Your task to perform on an android device: Go to battery settings Image 0: 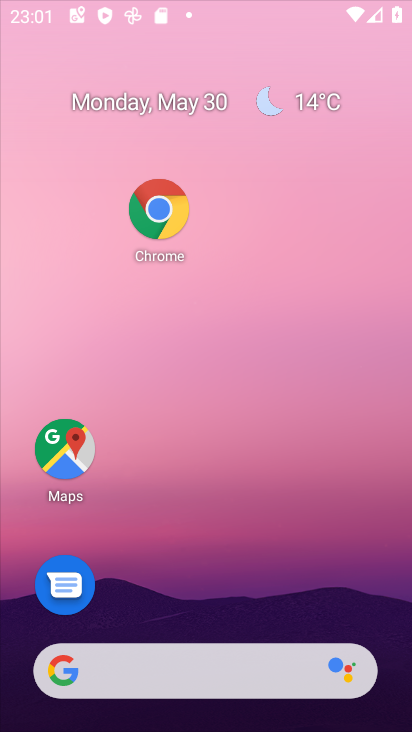
Step 0: drag from (261, 468) to (329, 59)
Your task to perform on an android device: Go to battery settings Image 1: 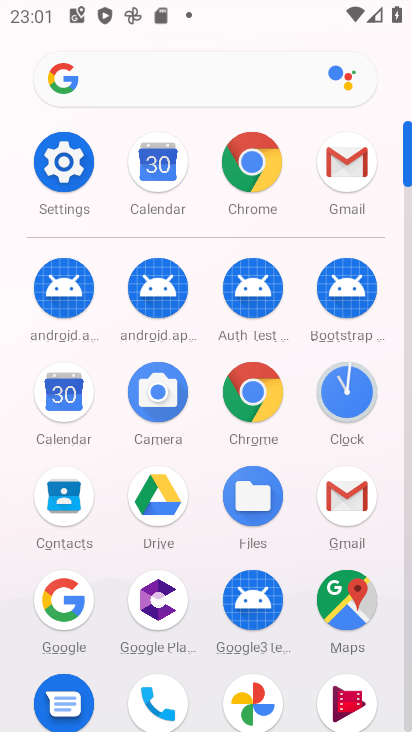
Step 1: click (65, 170)
Your task to perform on an android device: Go to battery settings Image 2: 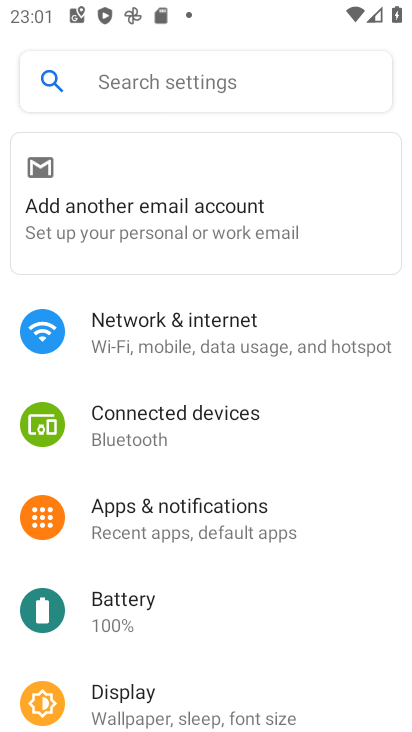
Step 2: drag from (160, 674) to (221, 447)
Your task to perform on an android device: Go to battery settings Image 3: 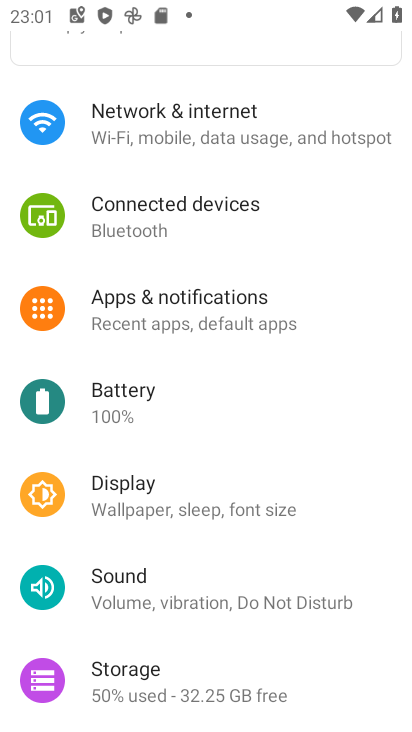
Step 3: click (168, 388)
Your task to perform on an android device: Go to battery settings Image 4: 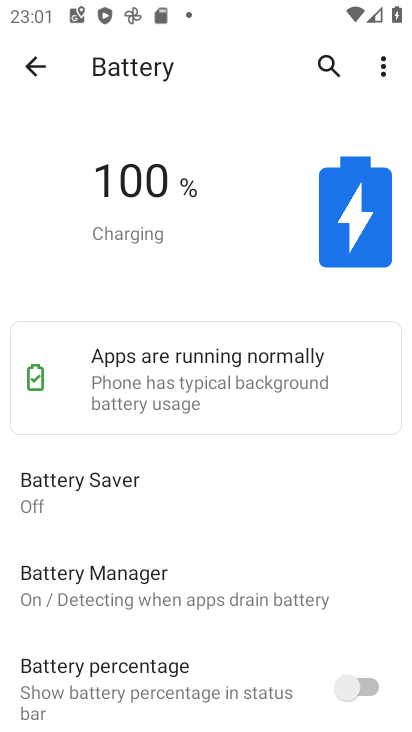
Step 4: task complete